Your task to perform on an android device: What is the news today? Image 0: 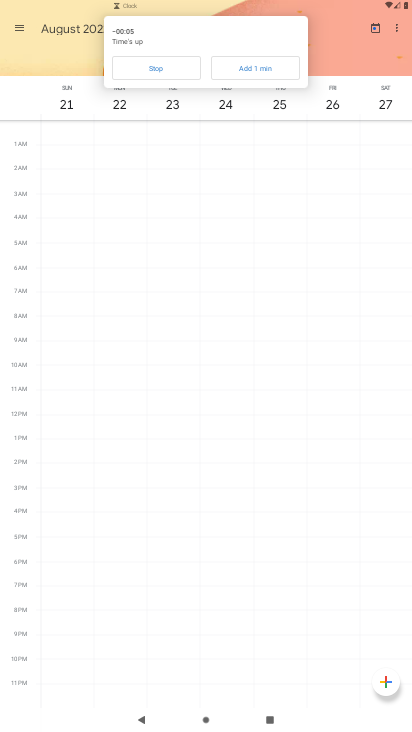
Step 0: press home button
Your task to perform on an android device: What is the news today? Image 1: 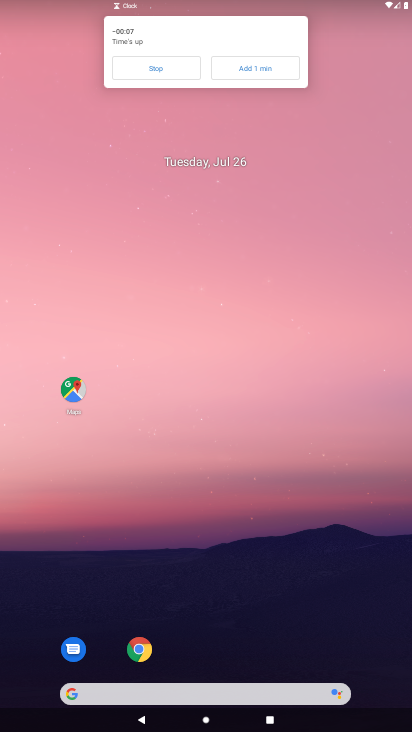
Step 1: click (155, 70)
Your task to perform on an android device: What is the news today? Image 2: 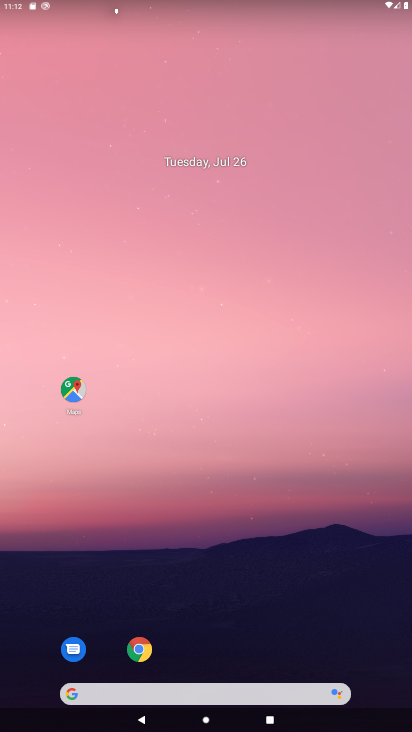
Step 2: click (186, 697)
Your task to perform on an android device: What is the news today? Image 3: 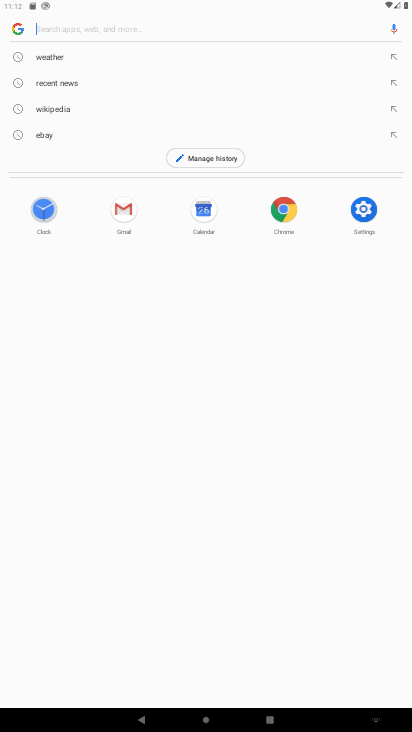
Step 3: type "news today ?"
Your task to perform on an android device: What is the news today? Image 4: 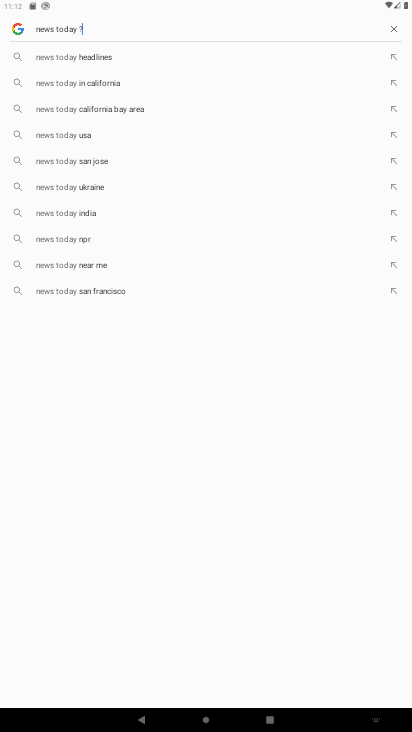
Step 4: click (69, 53)
Your task to perform on an android device: What is the news today? Image 5: 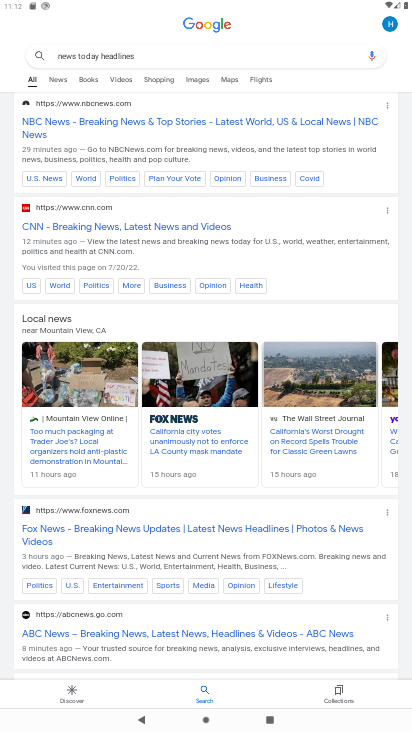
Step 5: task complete